Your task to perform on an android device: open chrome and create a bookmark for the current page Image 0: 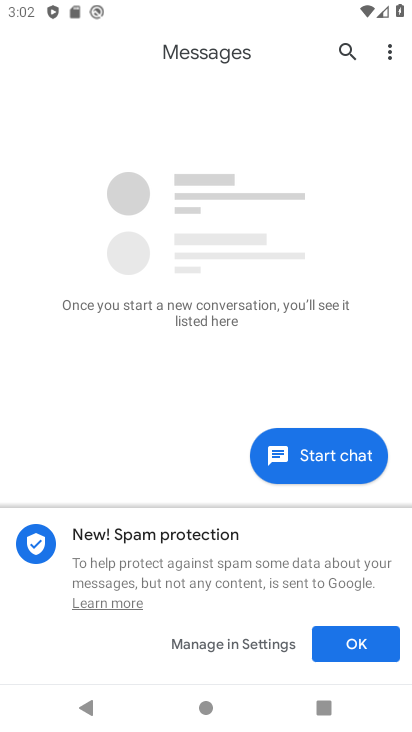
Step 0: press home button
Your task to perform on an android device: open chrome and create a bookmark for the current page Image 1: 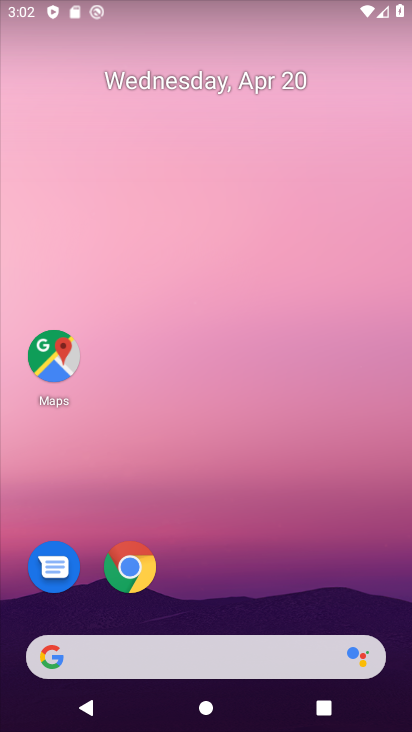
Step 1: click (137, 545)
Your task to perform on an android device: open chrome and create a bookmark for the current page Image 2: 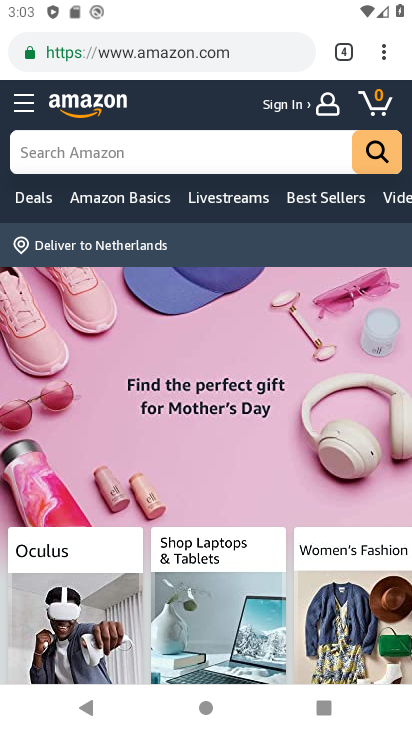
Step 2: click (179, 49)
Your task to perform on an android device: open chrome and create a bookmark for the current page Image 3: 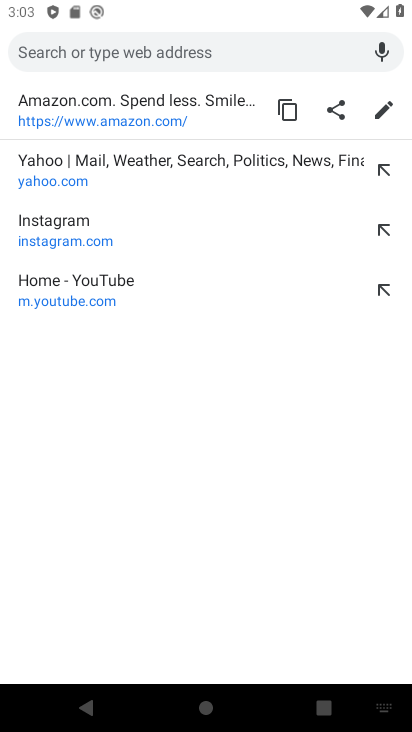
Step 3: type "pandeamic"
Your task to perform on an android device: open chrome and create a bookmark for the current page Image 4: 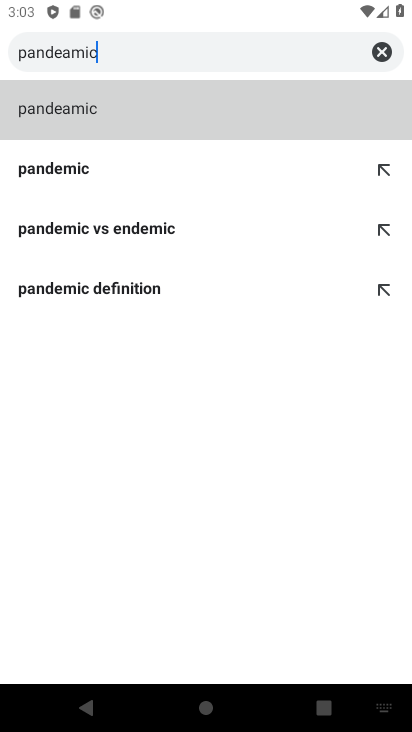
Step 4: click (107, 95)
Your task to perform on an android device: open chrome and create a bookmark for the current page Image 5: 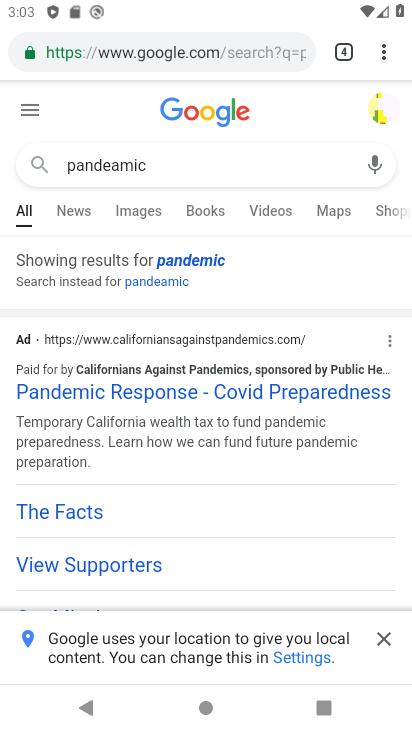
Step 5: click (373, 52)
Your task to perform on an android device: open chrome and create a bookmark for the current page Image 6: 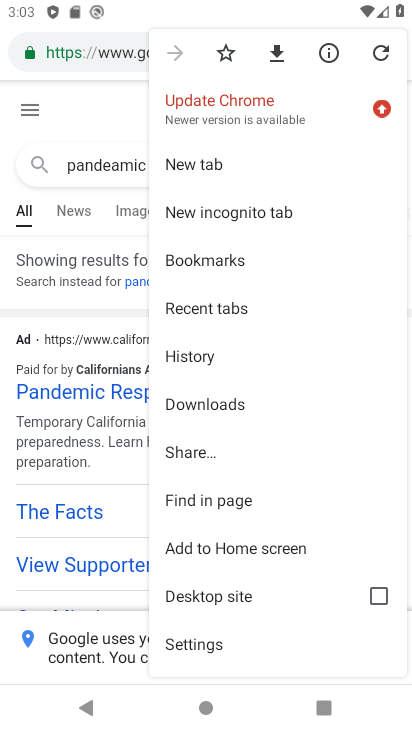
Step 6: click (225, 50)
Your task to perform on an android device: open chrome and create a bookmark for the current page Image 7: 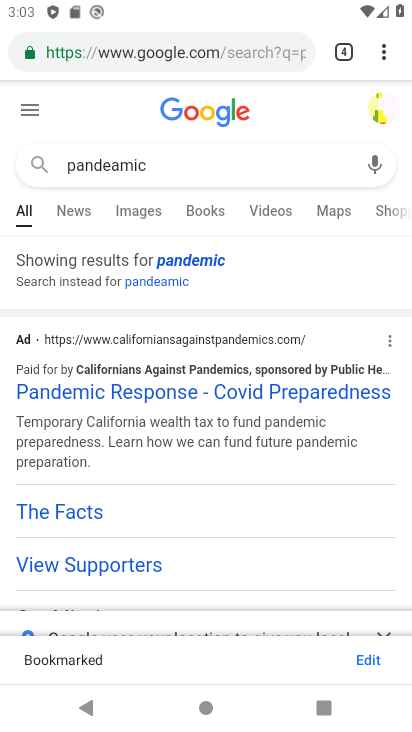
Step 7: task complete